Your task to perform on an android device: Open Android settings Image 0: 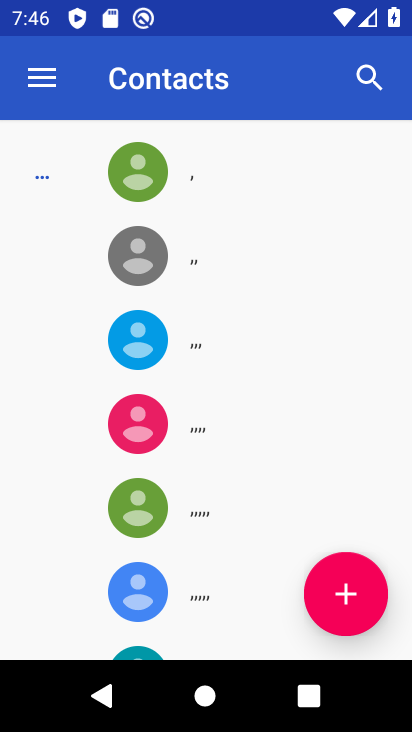
Step 0: press home button
Your task to perform on an android device: Open Android settings Image 1: 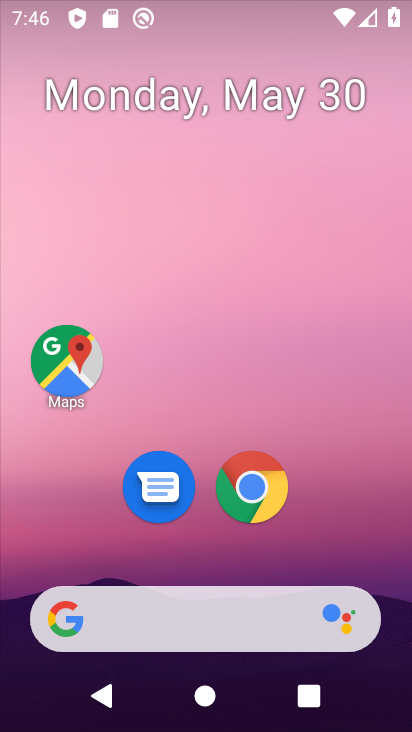
Step 1: drag from (313, 552) to (345, 150)
Your task to perform on an android device: Open Android settings Image 2: 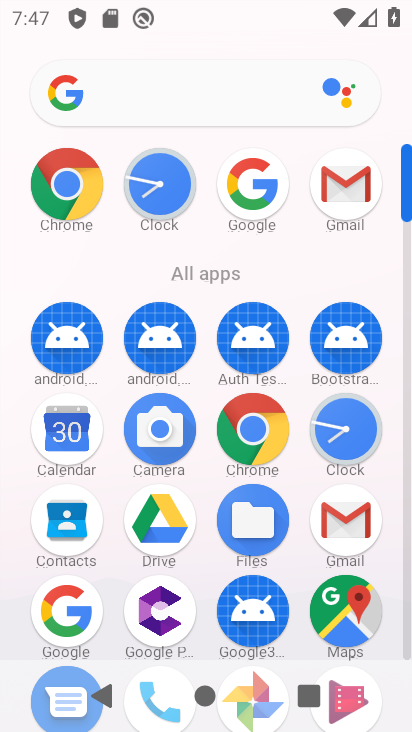
Step 2: drag from (191, 607) to (219, 284)
Your task to perform on an android device: Open Android settings Image 3: 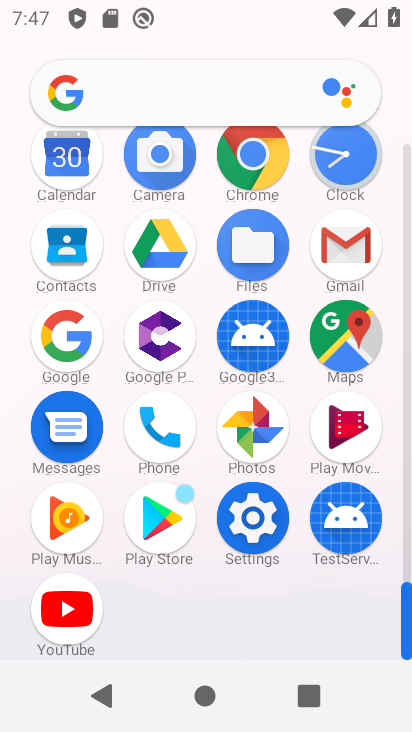
Step 3: click (263, 524)
Your task to perform on an android device: Open Android settings Image 4: 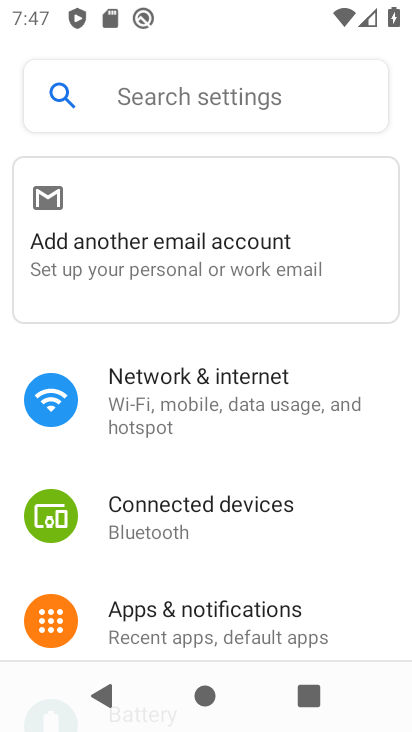
Step 4: task complete